Your task to perform on an android device: Empty the shopping cart on walmart.com. Add razer blackwidow to the cart on walmart.com, then select checkout. Image 0: 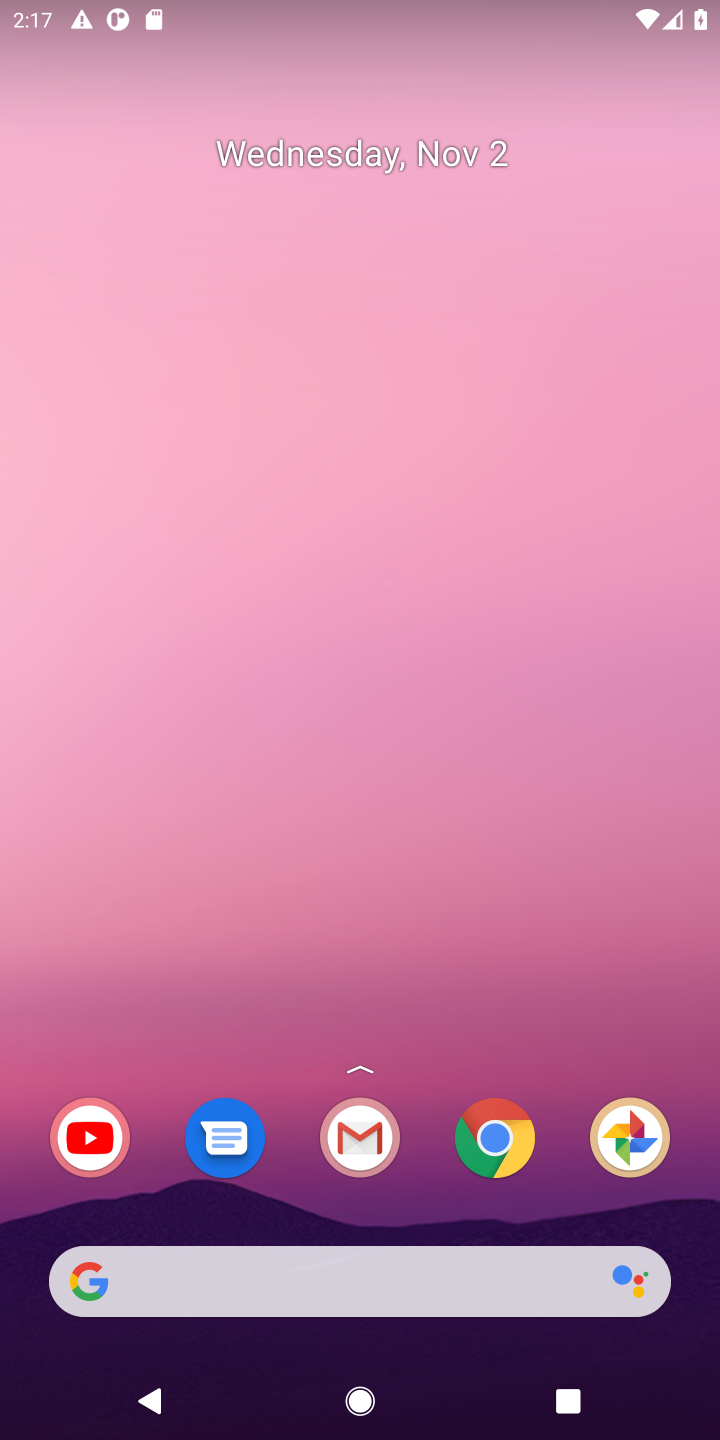
Step 0: press home button
Your task to perform on an android device: Empty the shopping cart on walmart.com. Add razer blackwidow to the cart on walmart.com, then select checkout. Image 1: 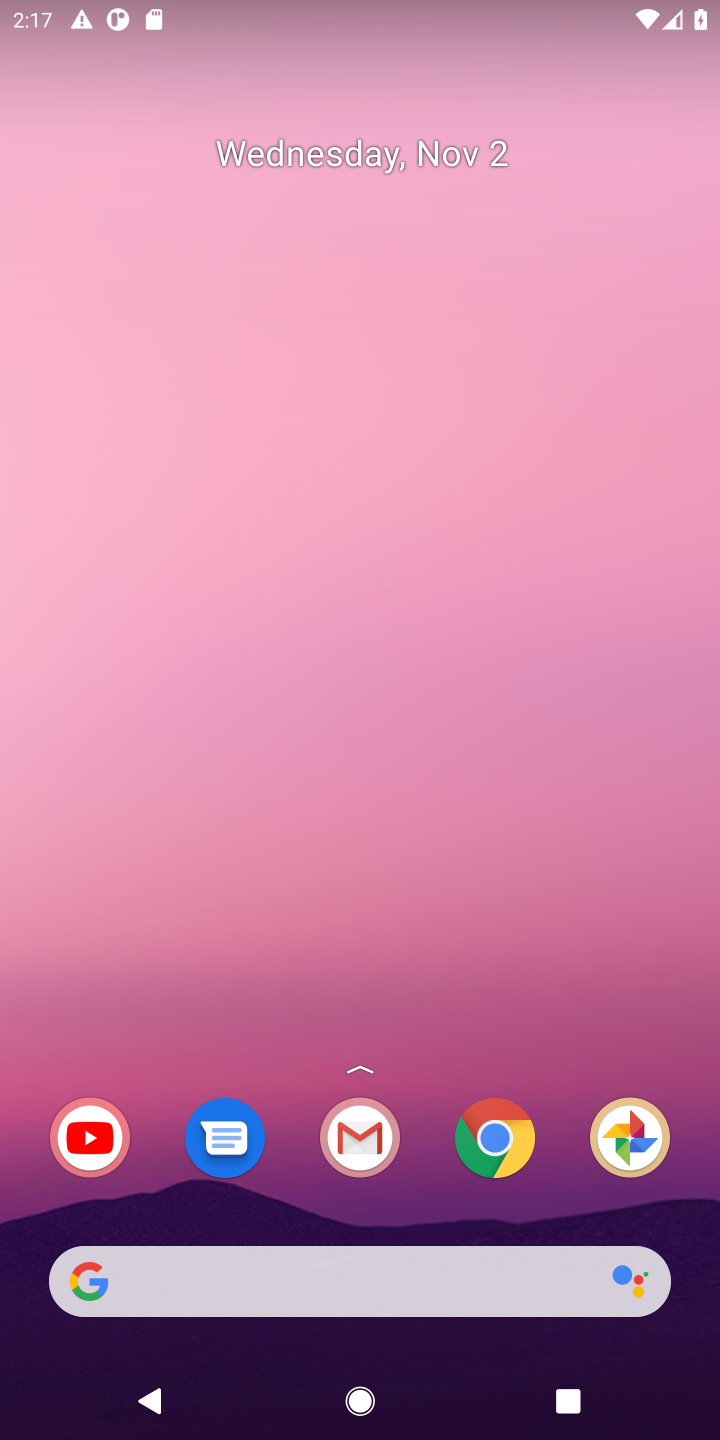
Step 1: click (267, 1274)
Your task to perform on an android device: Empty the shopping cart on walmart.com. Add razer blackwidow to the cart on walmart.com, then select checkout. Image 2: 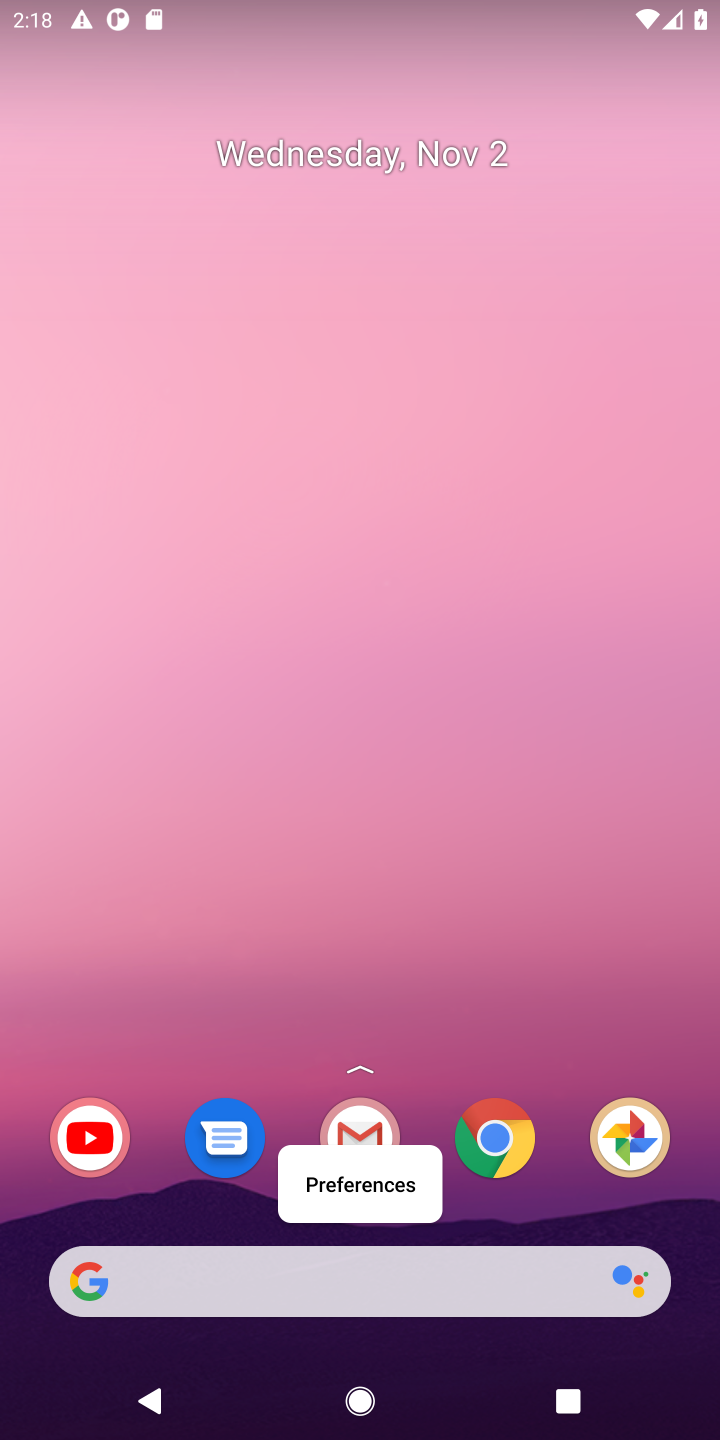
Step 2: click (134, 1279)
Your task to perform on an android device: Empty the shopping cart on walmart.com. Add razer blackwidow to the cart on walmart.com, then select checkout. Image 3: 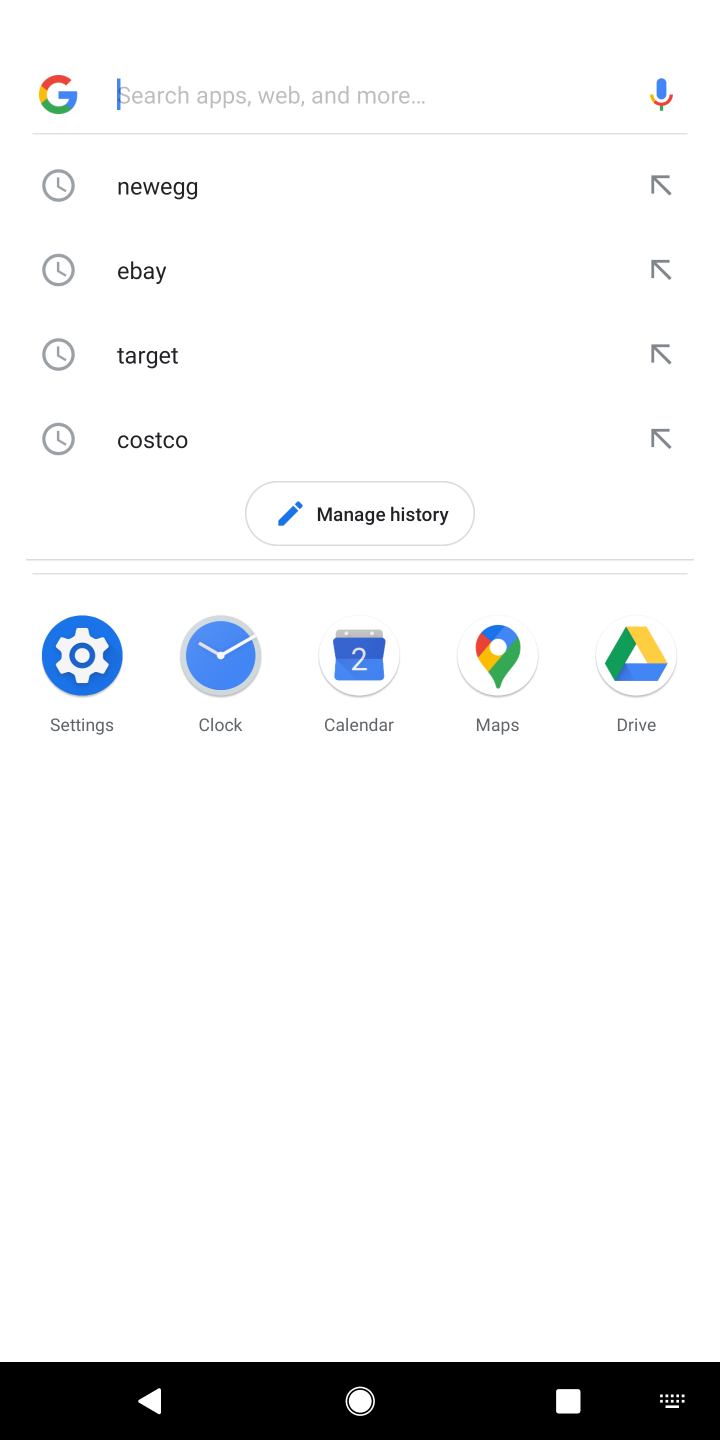
Step 3: type "walmart.com"
Your task to perform on an android device: Empty the shopping cart on walmart.com. Add razer blackwidow to the cart on walmart.com, then select checkout. Image 4: 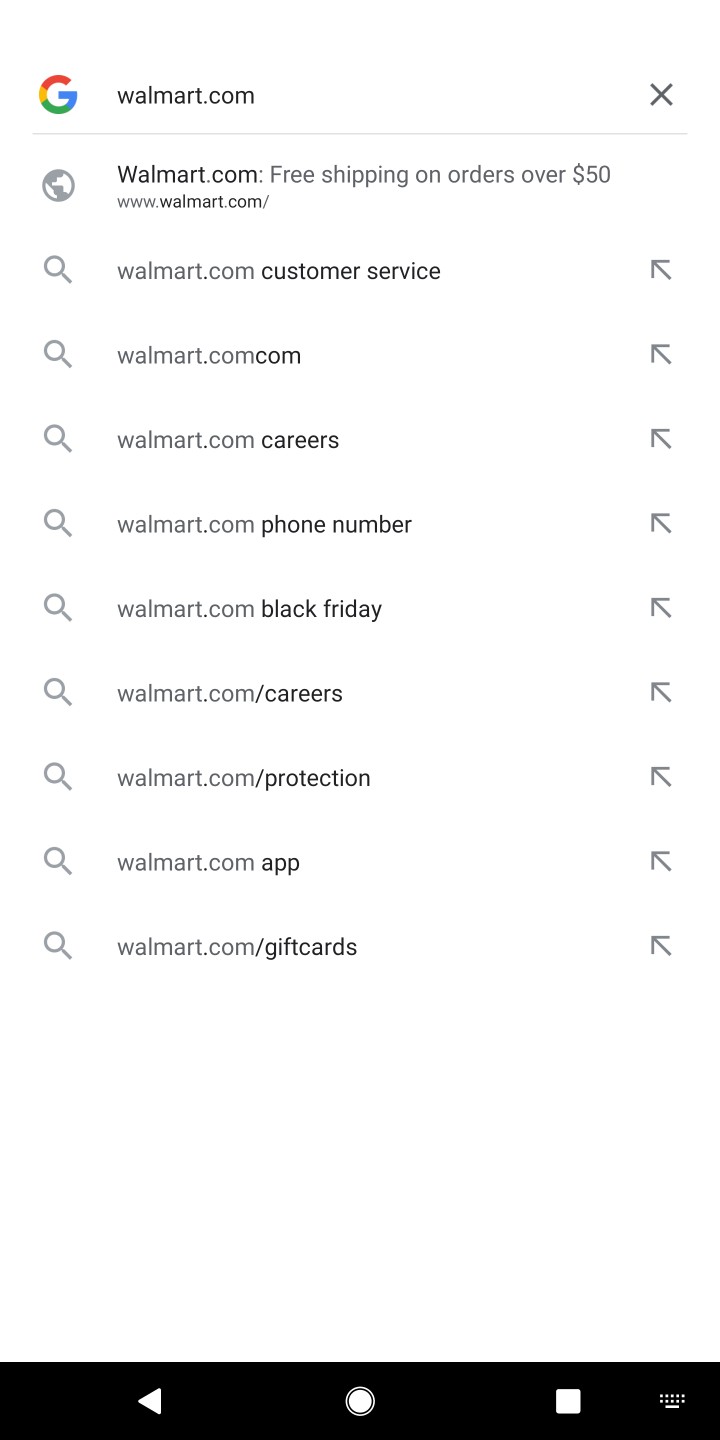
Step 4: press enter
Your task to perform on an android device: Empty the shopping cart on walmart.com. Add razer blackwidow to the cart on walmart.com, then select checkout. Image 5: 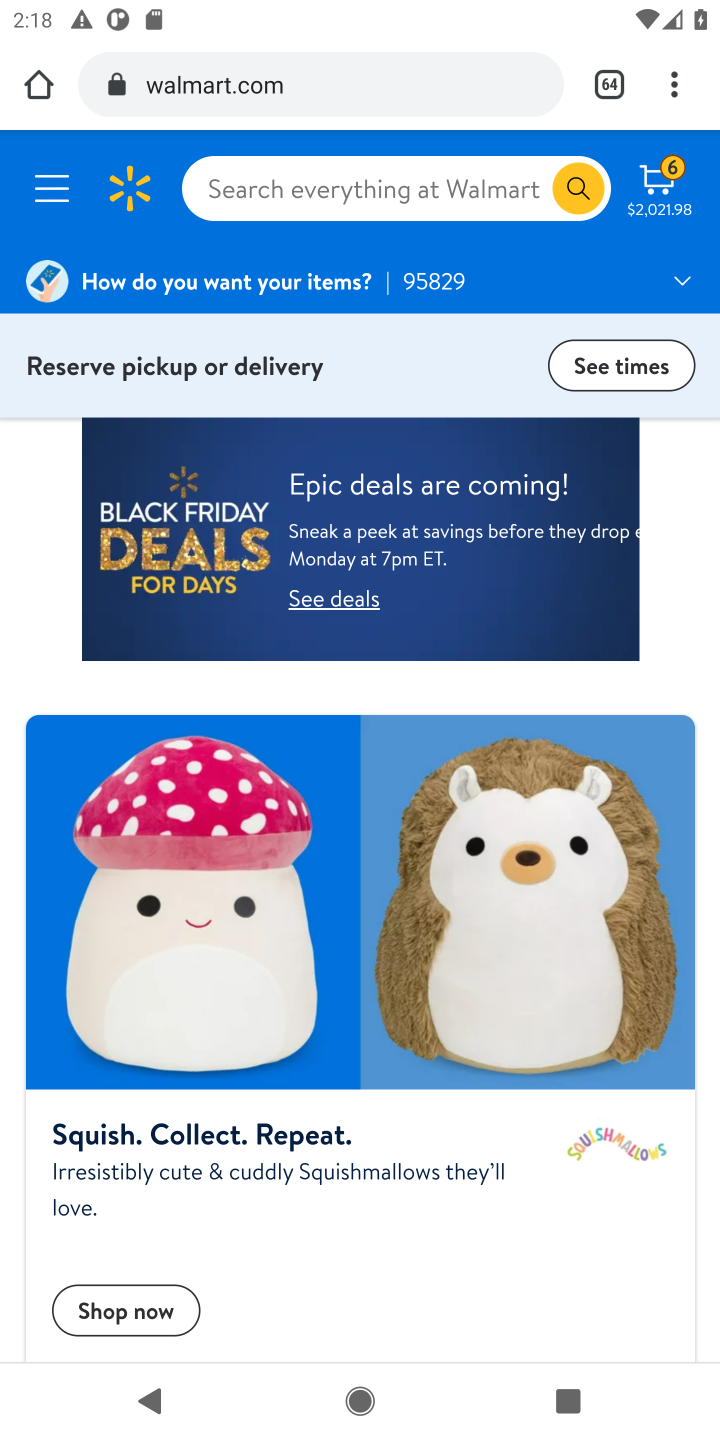
Step 5: click (654, 172)
Your task to perform on an android device: Empty the shopping cart on walmart.com. Add razer blackwidow to the cart on walmart.com, then select checkout. Image 6: 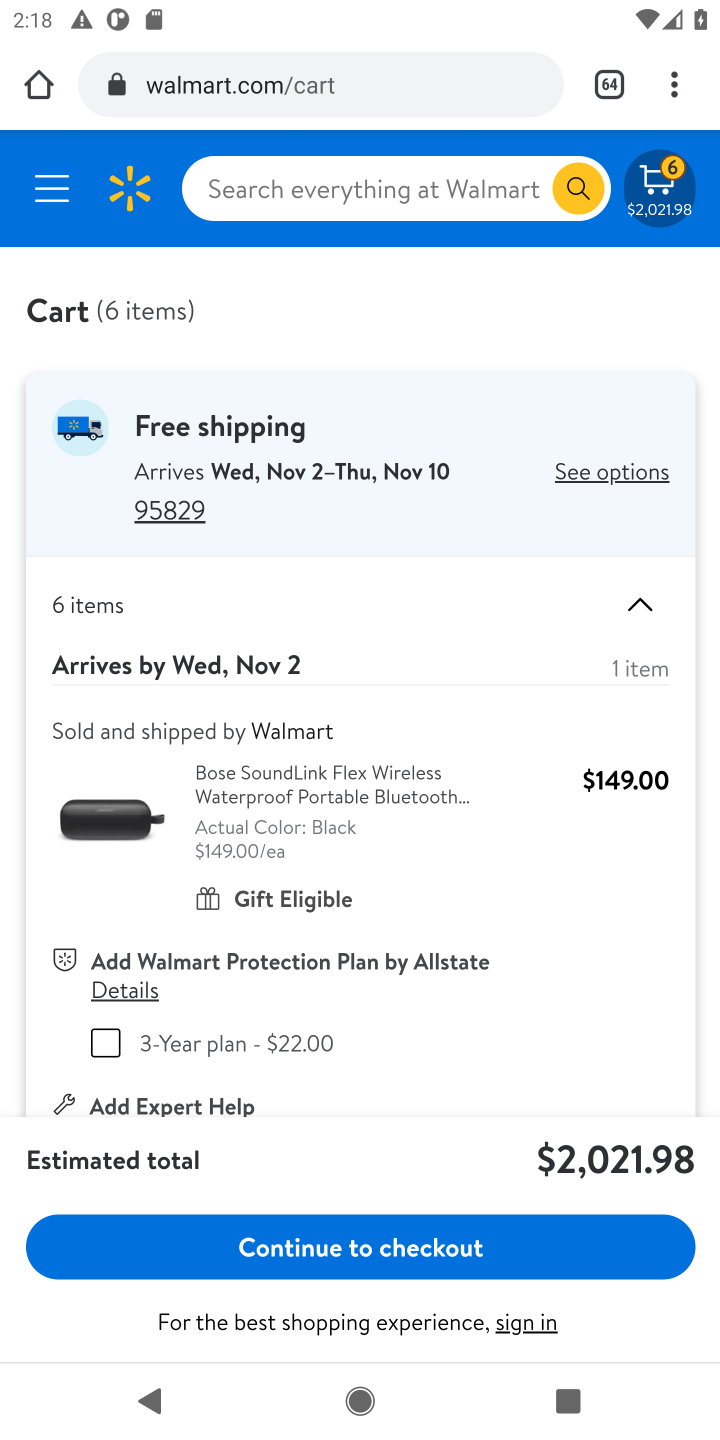
Step 6: drag from (317, 1024) to (313, 657)
Your task to perform on an android device: Empty the shopping cart on walmart.com. Add razer blackwidow to the cart on walmart.com, then select checkout. Image 7: 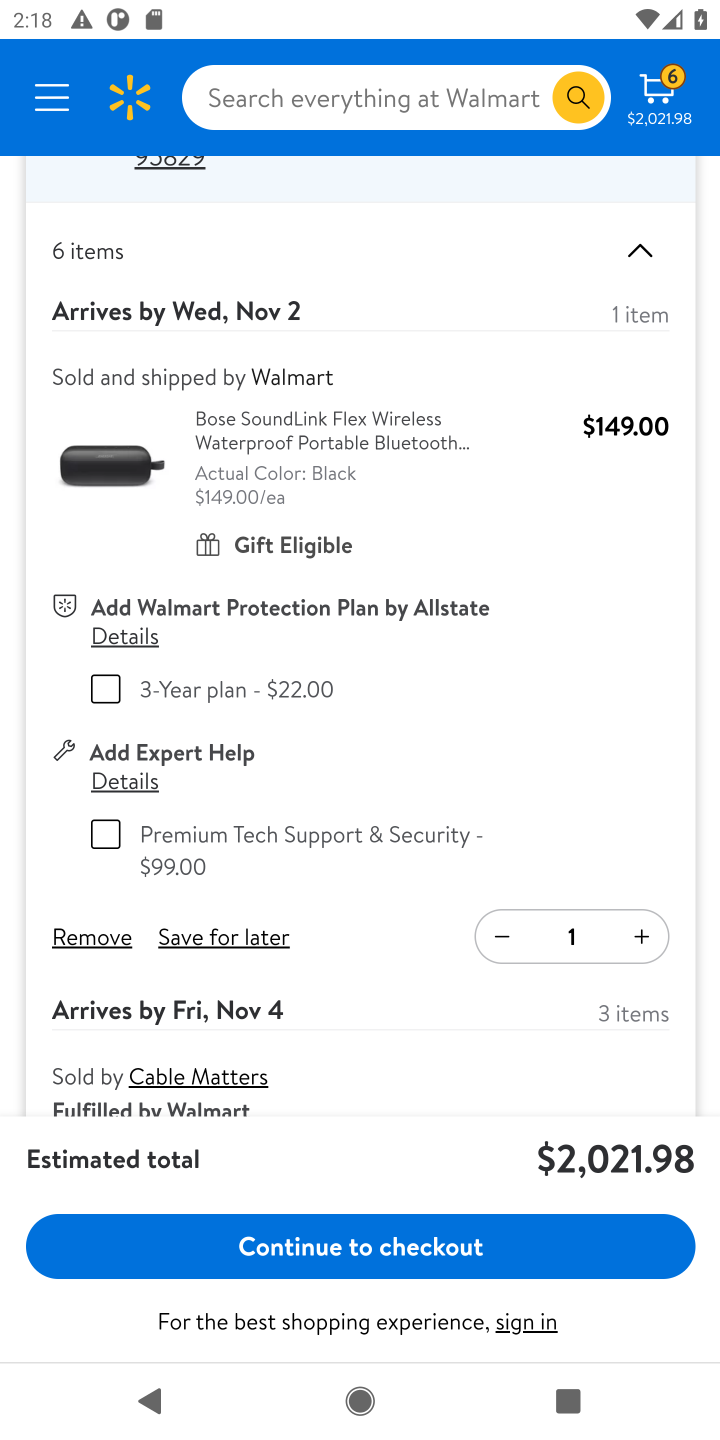
Step 7: click (113, 933)
Your task to perform on an android device: Empty the shopping cart on walmart.com. Add razer blackwidow to the cart on walmart.com, then select checkout. Image 8: 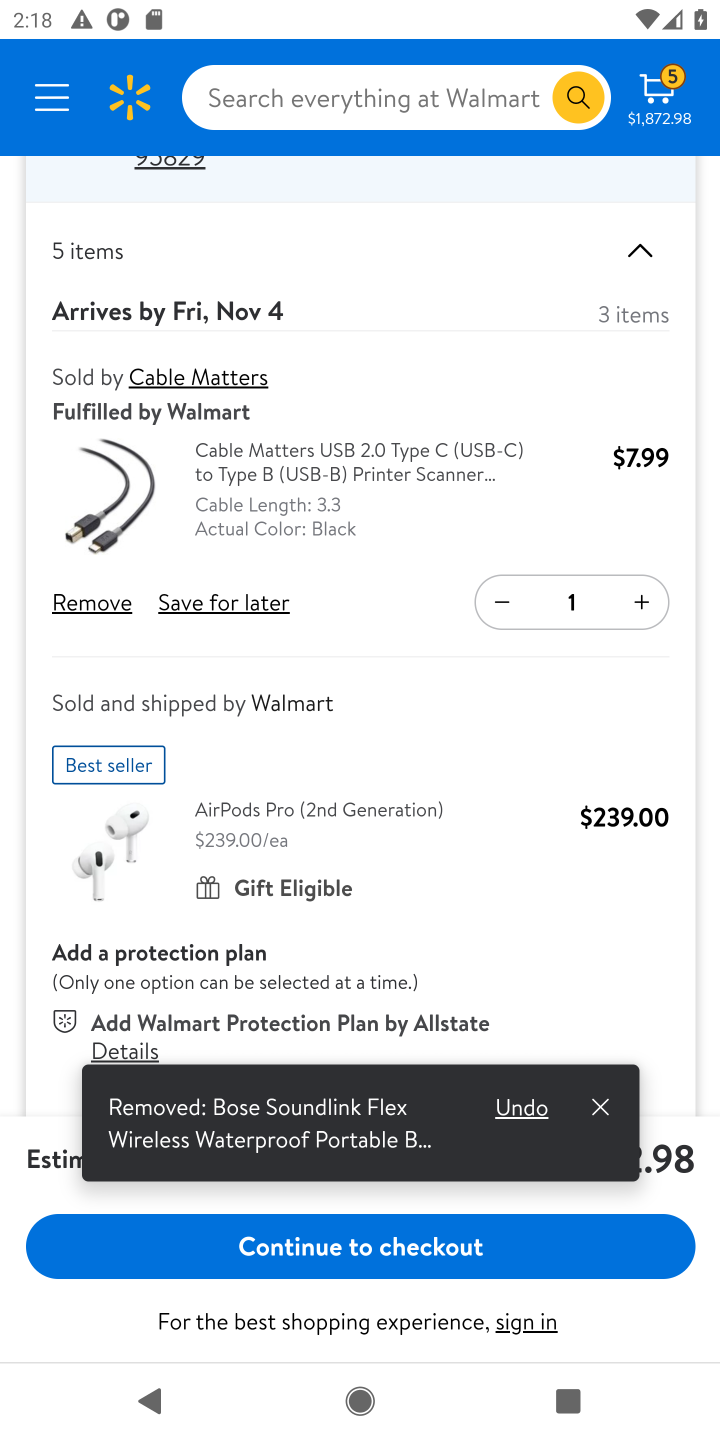
Step 8: click (97, 610)
Your task to perform on an android device: Empty the shopping cart on walmart.com. Add razer blackwidow to the cart on walmart.com, then select checkout. Image 9: 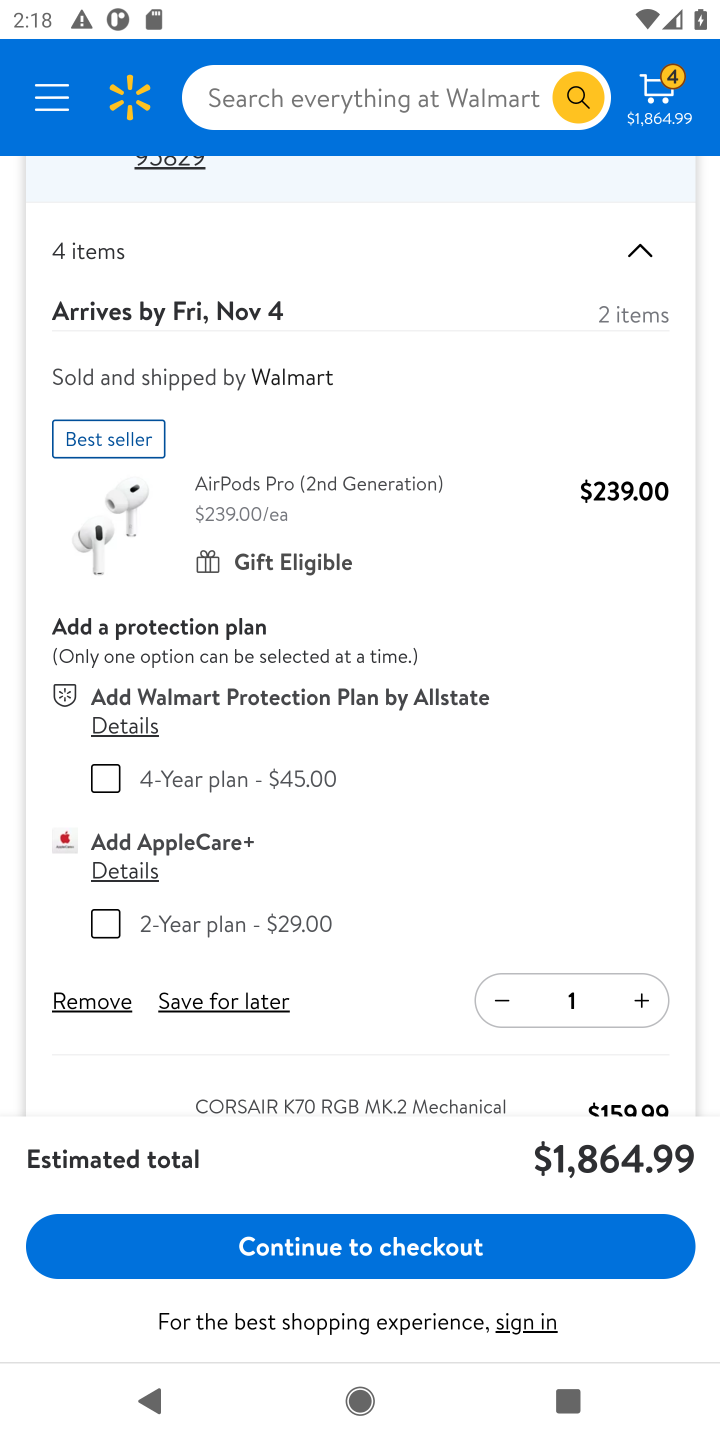
Step 9: click (90, 1011)
Your task to perform on an android device: Empty the shopping cart on walmart.com. Add razer blackwidow to the cart on walmart.com, then select checkout. Image 10: 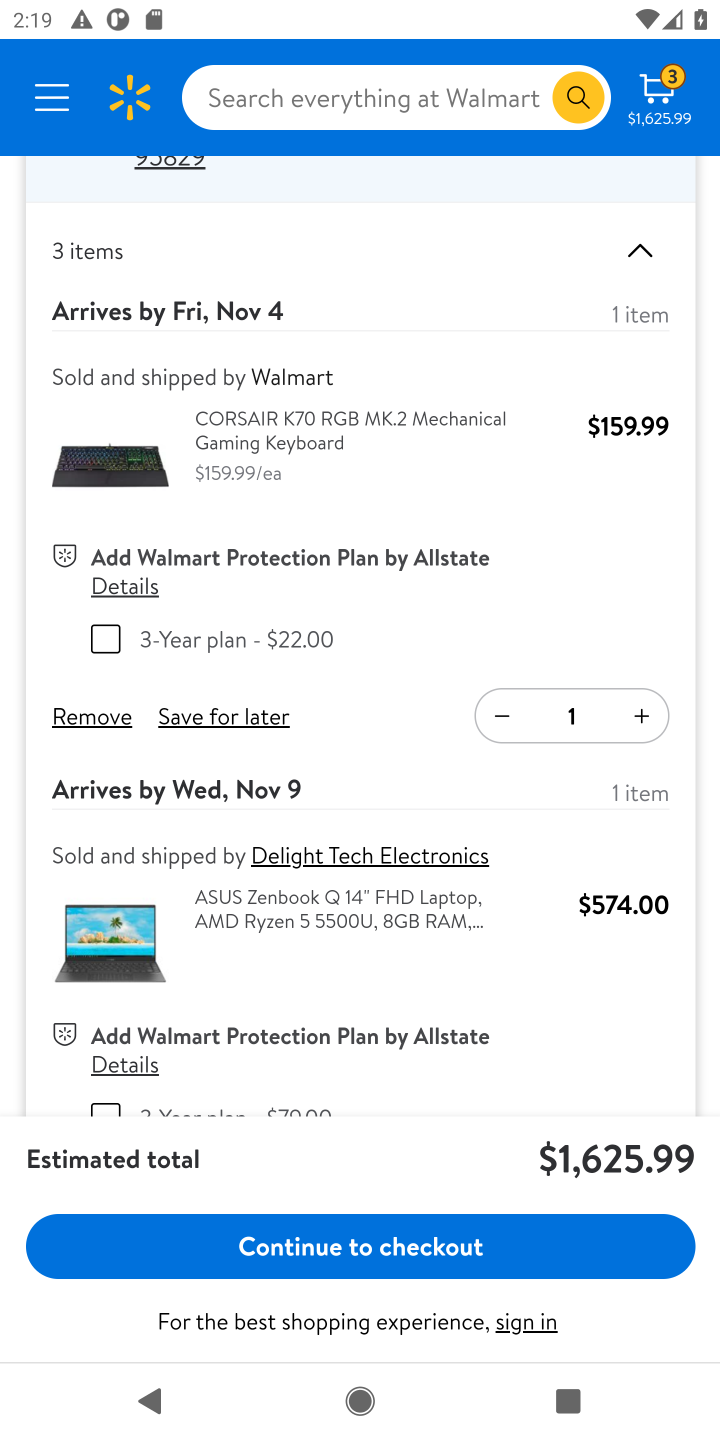
Step 10: click (91, 722)
Your task to perform on an android device: Empty the shopping cart on walmart.com. Add razer blackwidow to the cart on walmart.com, then select checkout. Image 11: 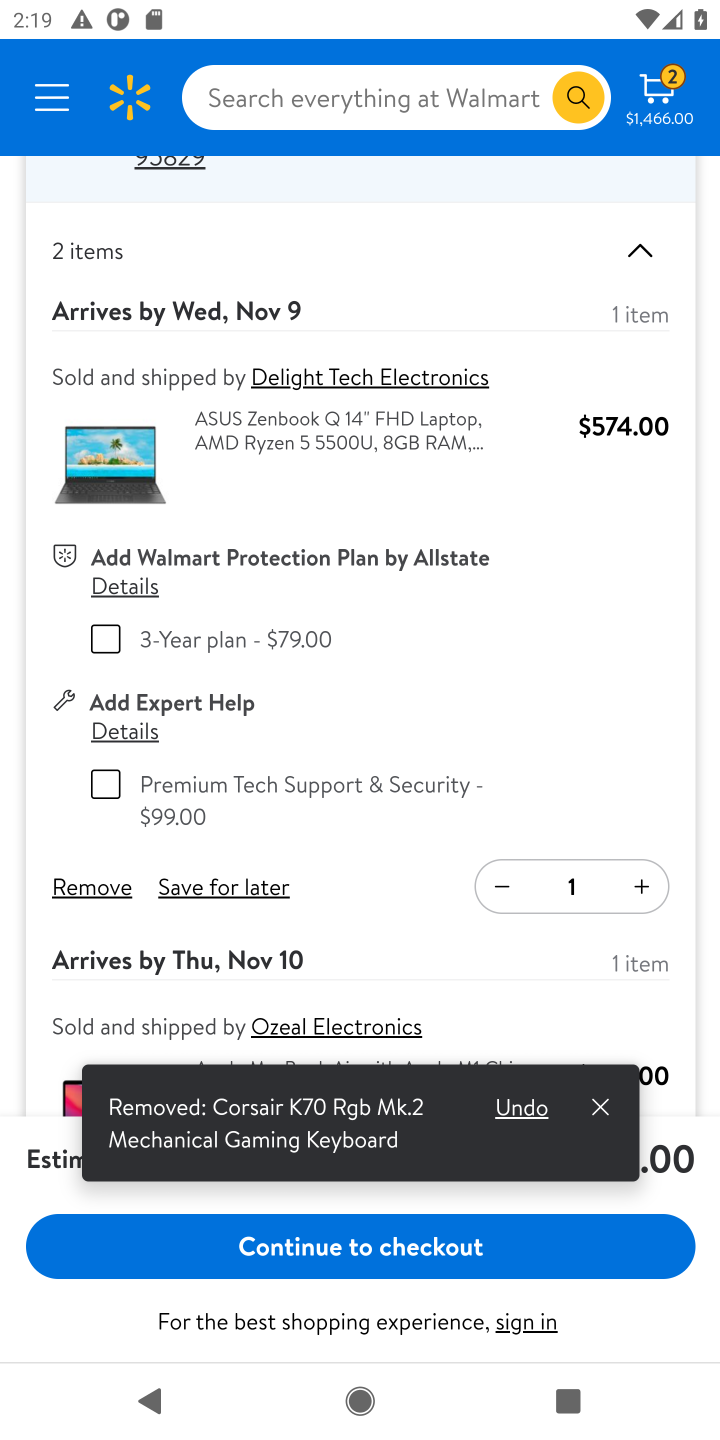
Step 11: click (97, 900)
Your task to perform on an android device: Empty the shopping cart on walmart.com. Add razer blackwidow to the cart on walmart.com, then select checkout. Image 12: 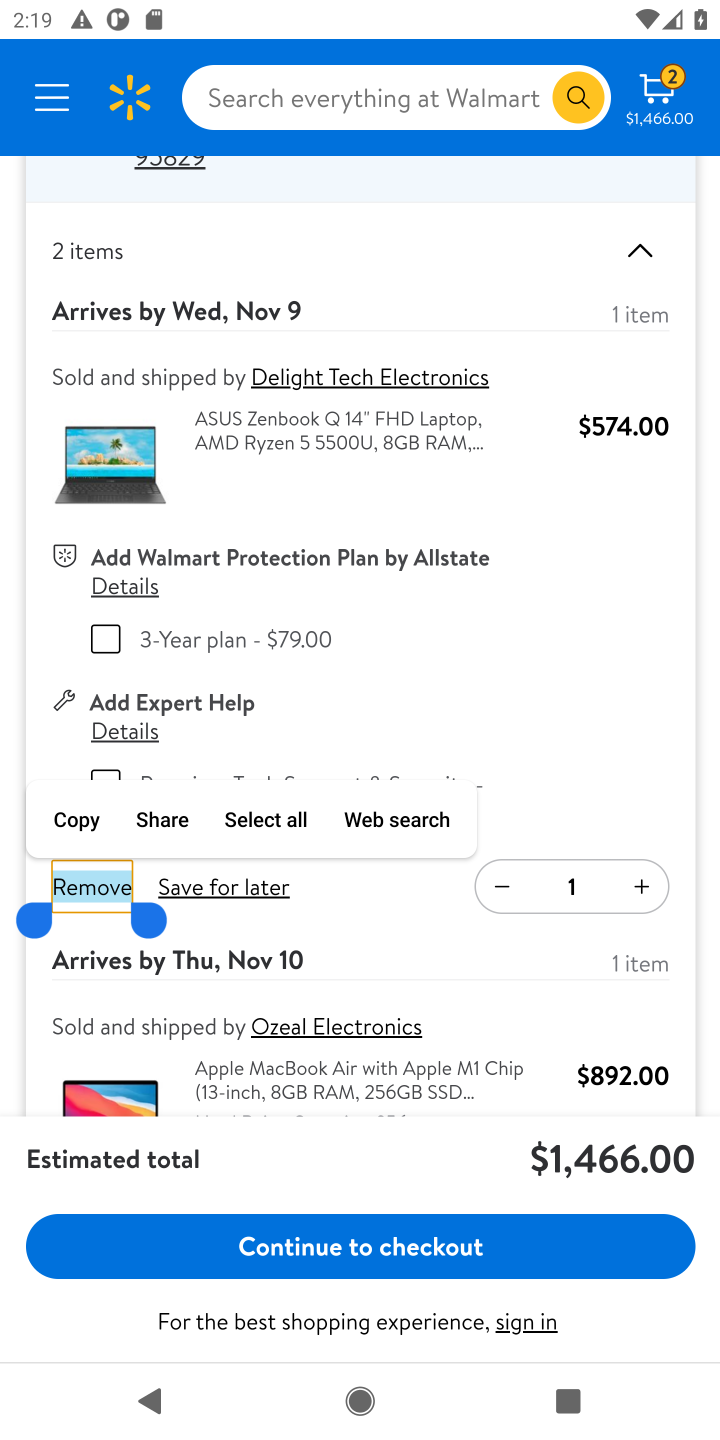
Step 12: click (84, 881)
Your task to perform on an android device: Empty the shopping cart on walmart.com. Add razer blackwidow to the cart on walmart.com, then select checkout. Image 13: 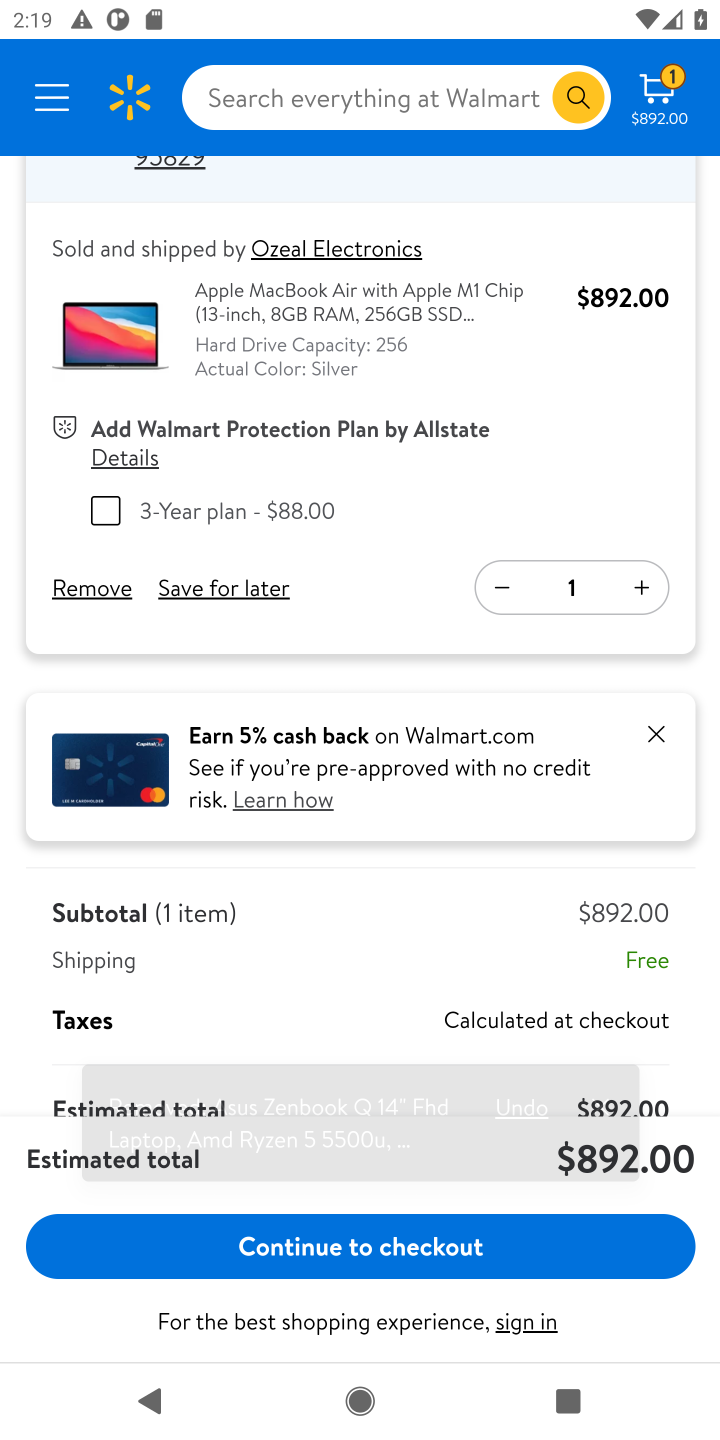
Step 13: click (102, 594)
Your task to perform on an android device: Empty the shopping cart on walmart.com. Add razer blackwidow to the cart on walmart.com, then select checkout. Image 14: 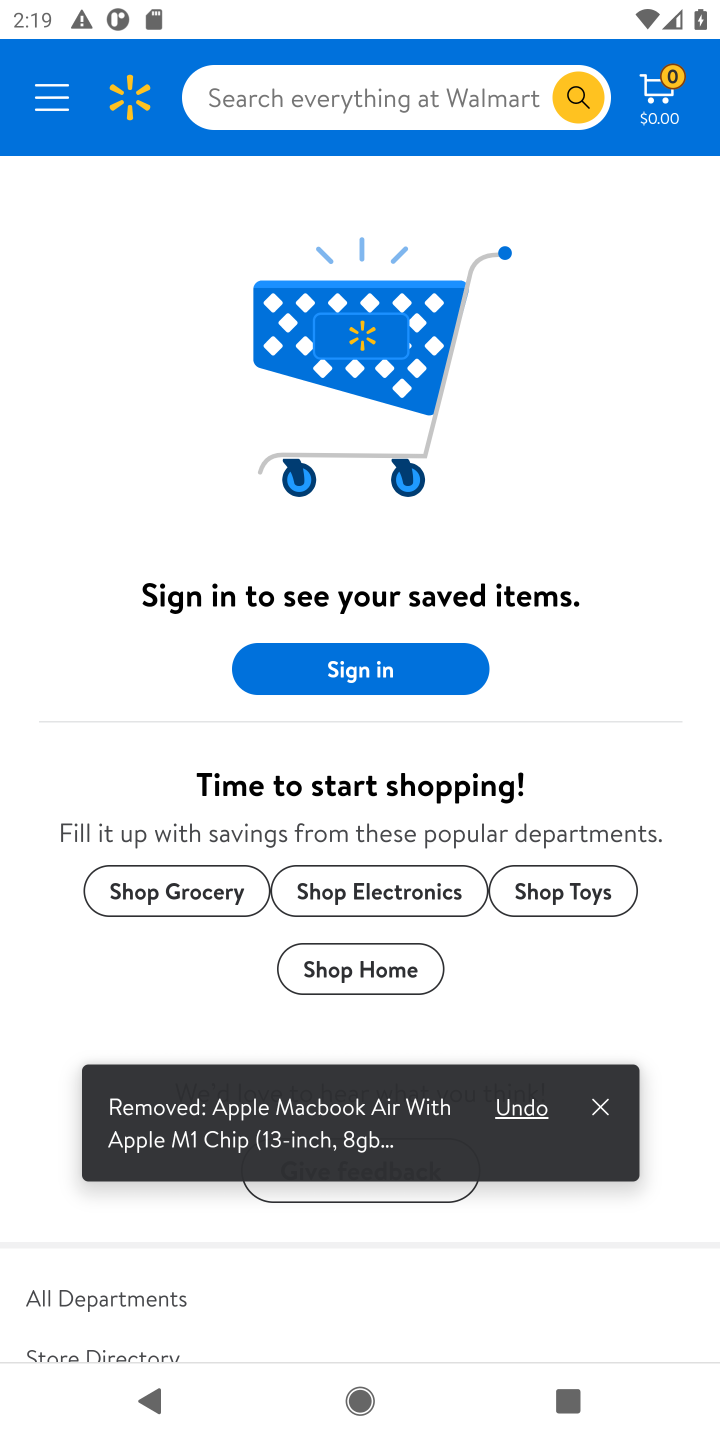
Step 14: click (320, 101)
Your task to perform on an android device: Empty the shopping cart on walmart.com. Add razer blackwidow to the cart on walmart.com, then select checkout. Image 15: 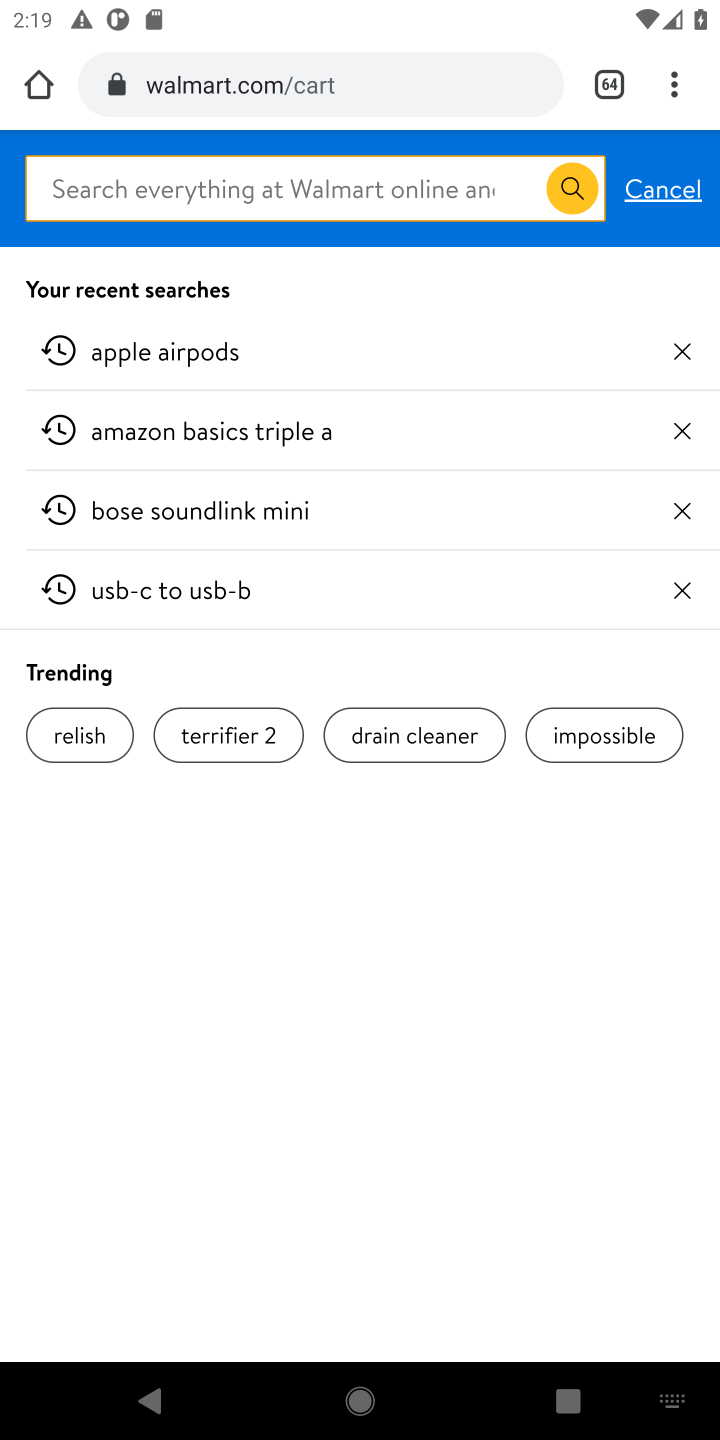
Step 15: type "razer blackwidow"
Your task to perform on an android device: Empty the shopping cart on walmart.com. Add razer blackwidow to the cart on walmart.com, then select checkout. Image 16: 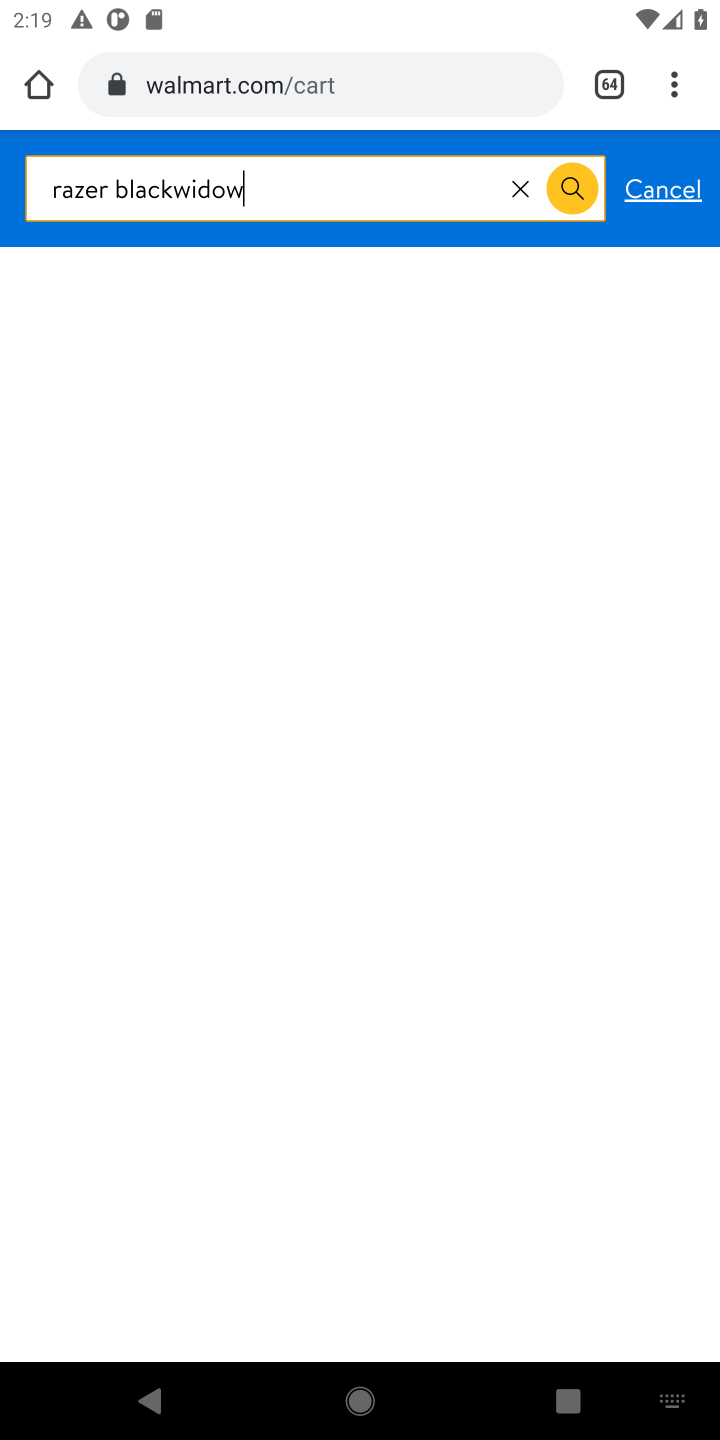
Step 16: press enter
Your task to perform on an android device: Empty the shopping cart on walmart.com. Add razer blackwidow to the cart on walmart.com, then select checkout. Image 17: 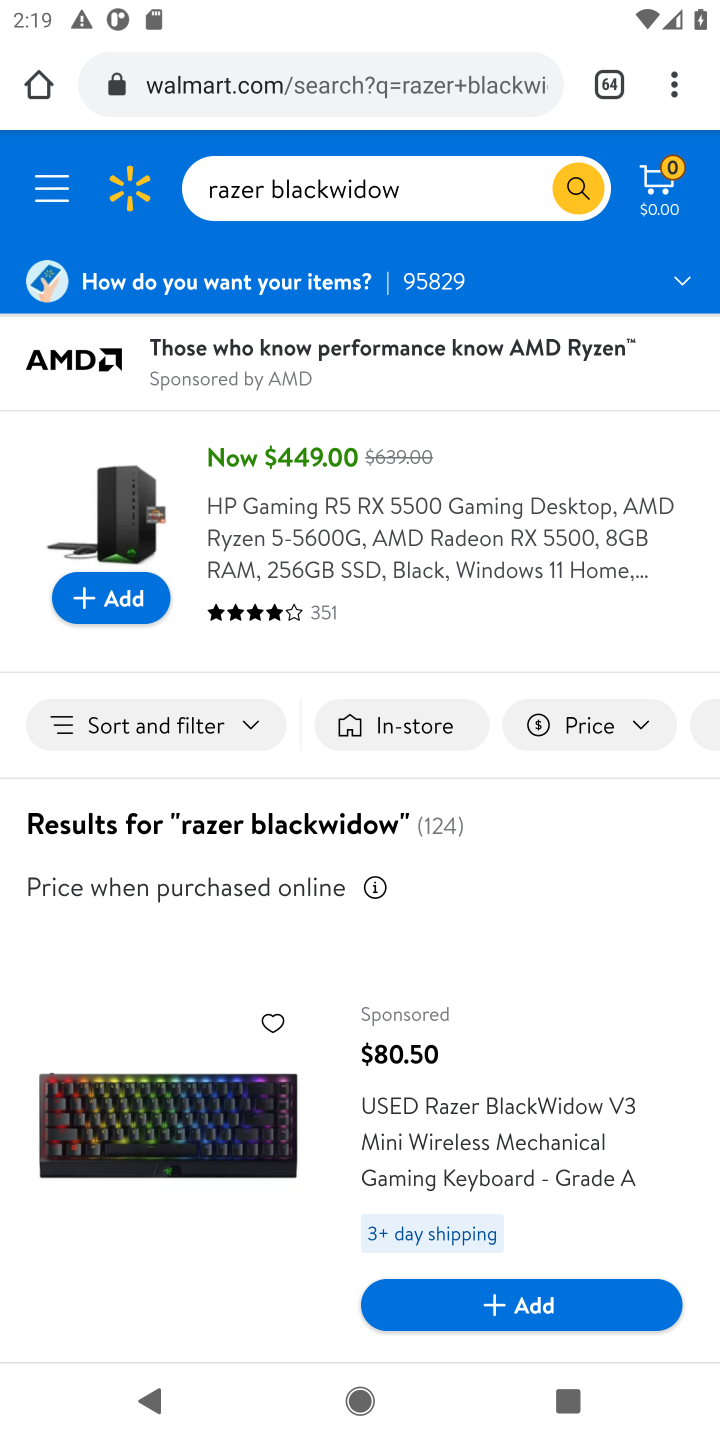
Step 17: drag from (528, 1066) to (496, 693)
Your task to perform on an android device: Empty the shopping cart on walmart.com. Add razer blackwidow to the cart on walmart.com, then select checkout. Image 18: 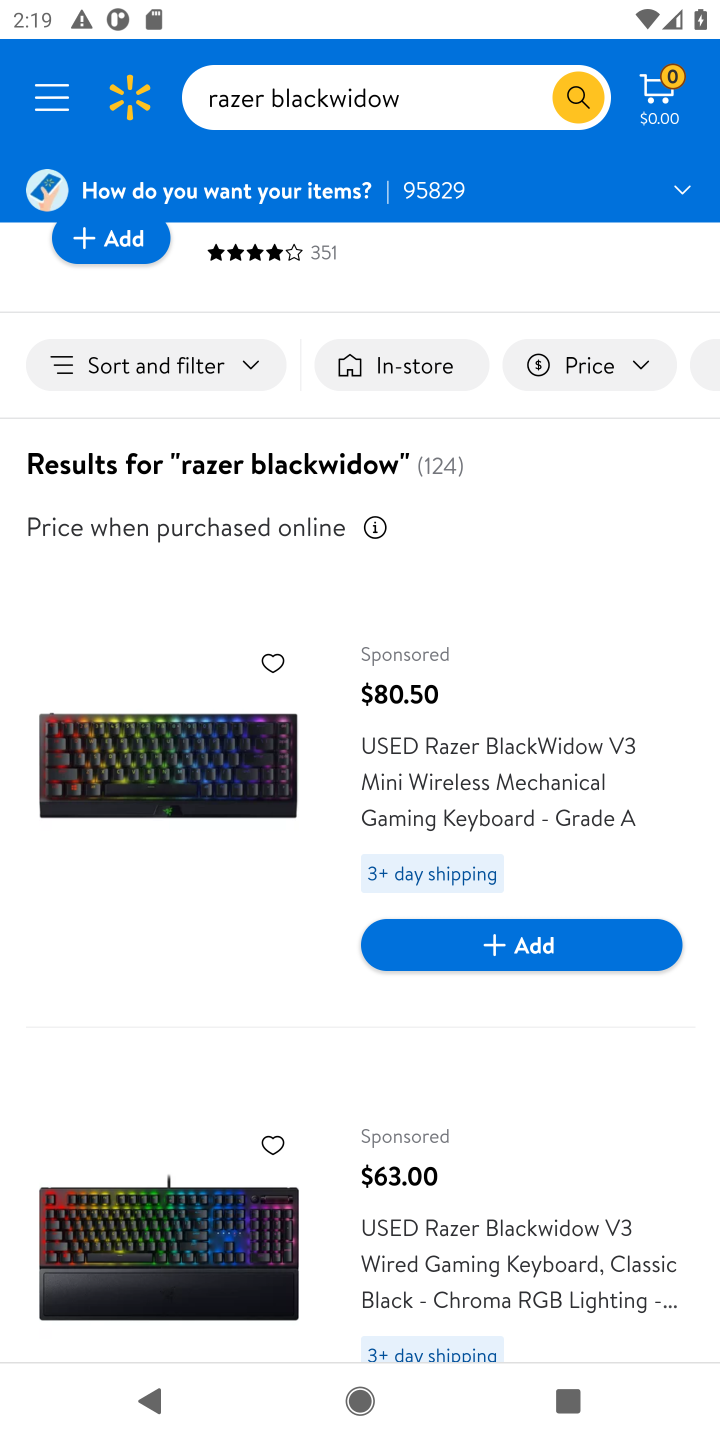
Step 18: drag from (498, 1159) to (496, 819)
Your task to perform on an android device: Empty the shopping cart on walmart.com. Add razer blackwidow to the cart on walmart.com, then select checkout. Image 19: 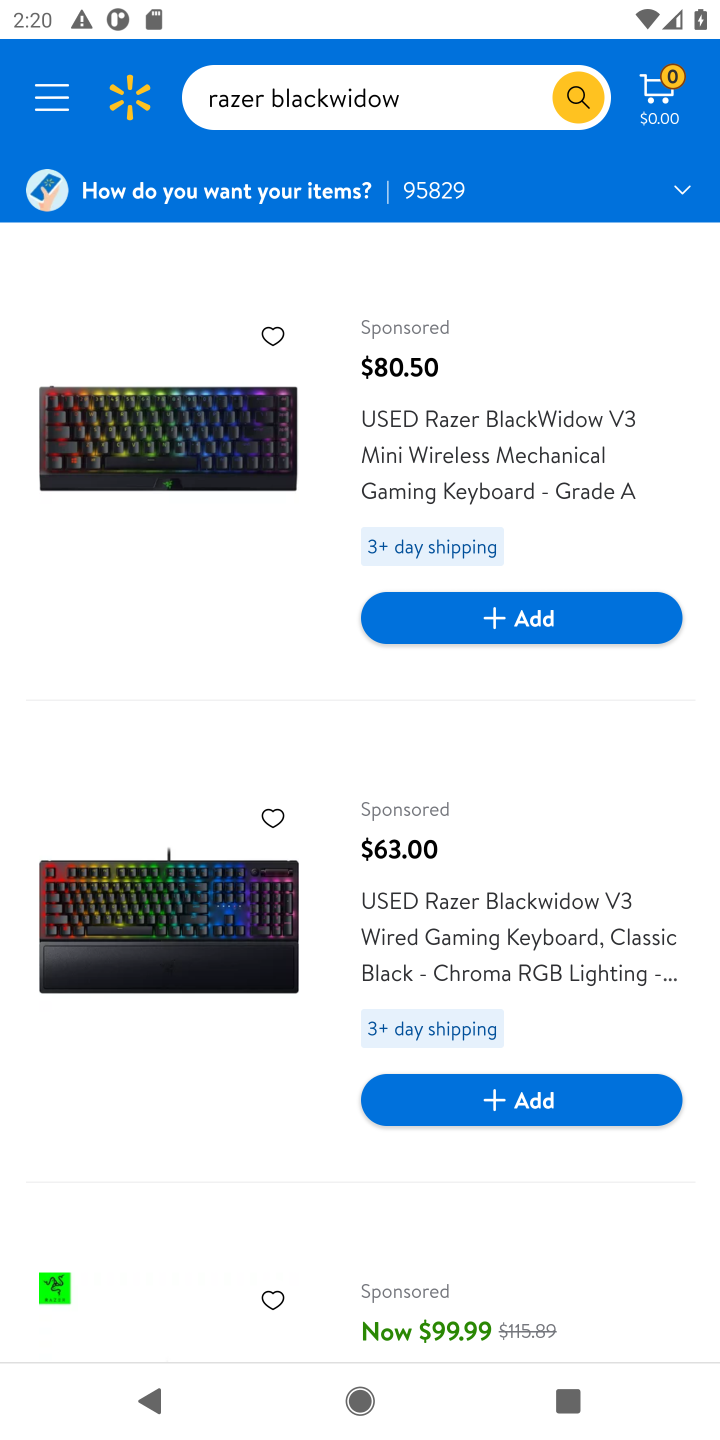
Step 19: click (526, 1100)
Your task to perform on an android device: Empty the shopping cart on walmart.com. Add razer blackwidow to the cart on walmart.com, then select checkout. Image 20: 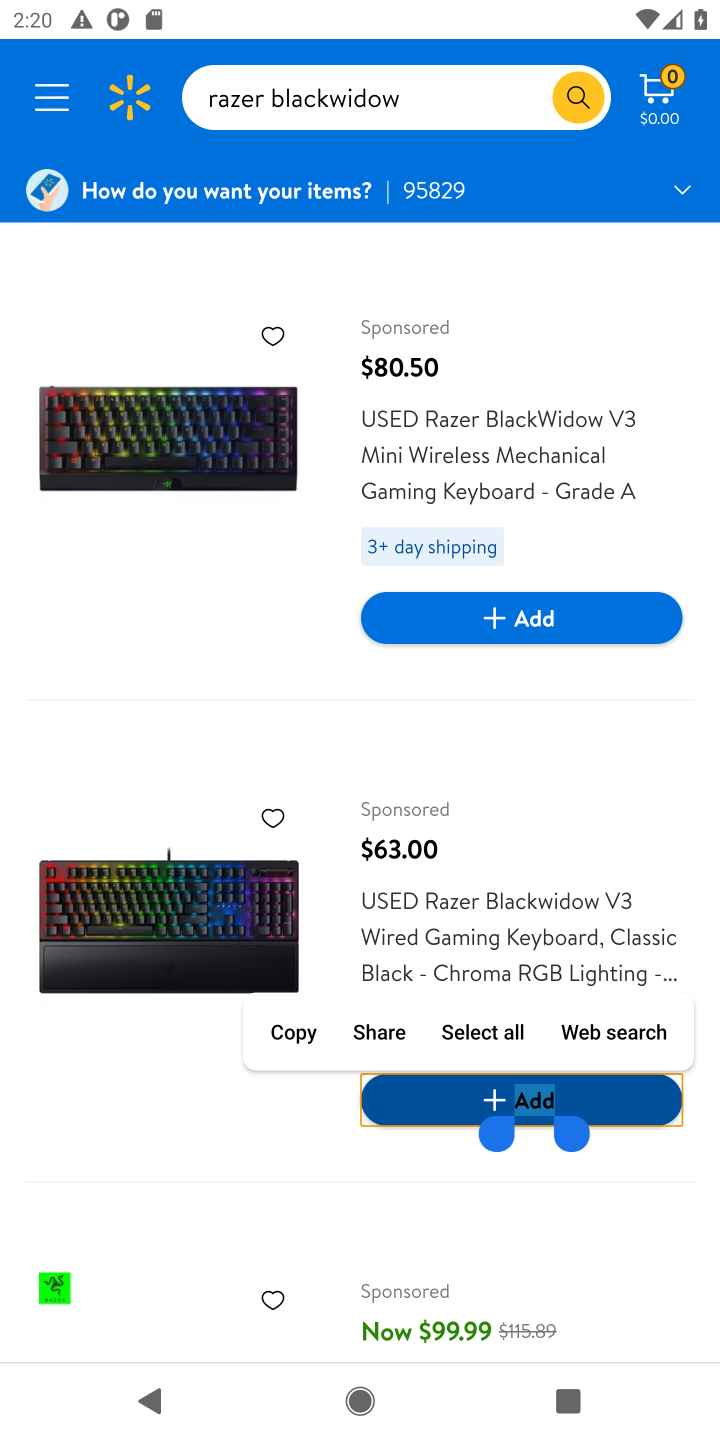
Step 20: click (541, 1095)
Your task to perform on an android device: Empty the shopping cart on walmart.com. Add razer blackwidow to the cart on walmart.com, then select checkout. Image 21: 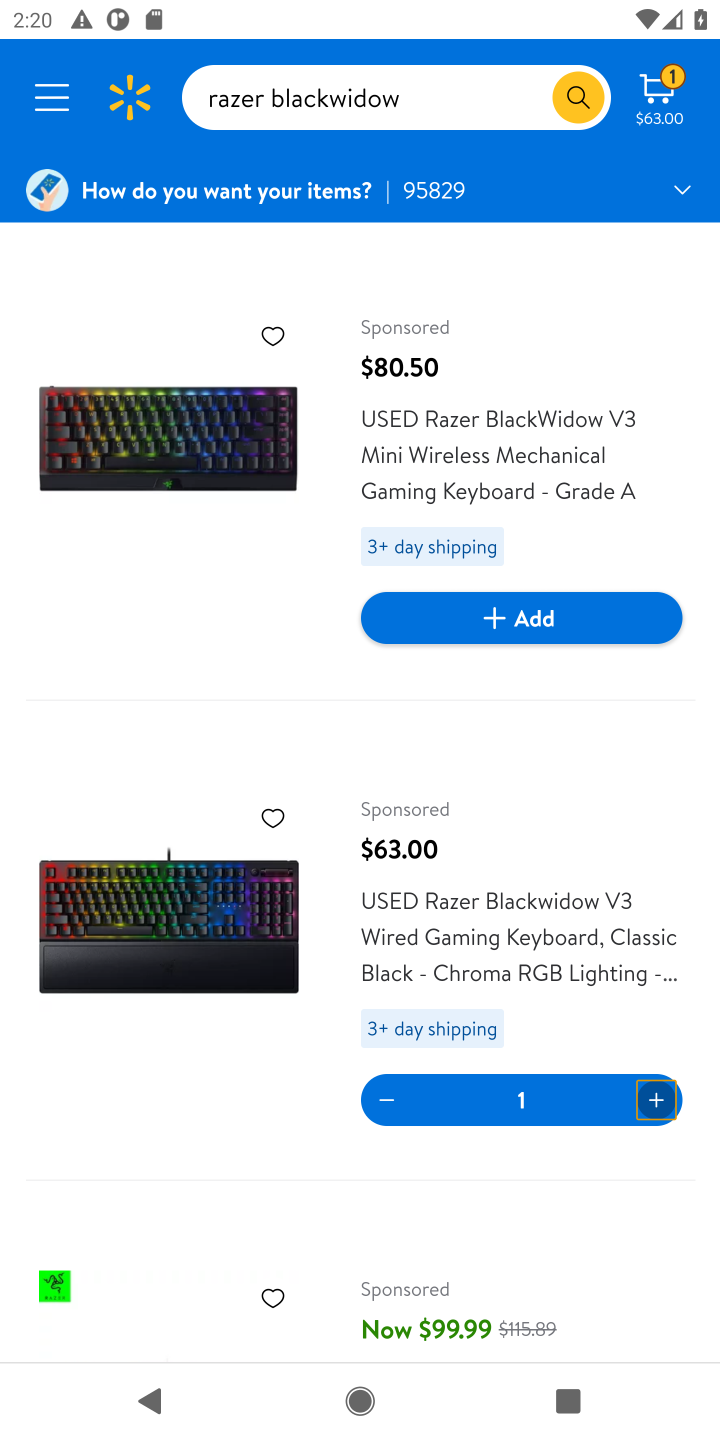
Step 21: click (646, 103)
Your task to perform on an android device: Empty the shopping cart on walmart.com. Add razer blackwidow to the cart on walmart.com, then select checkout. Image 22: 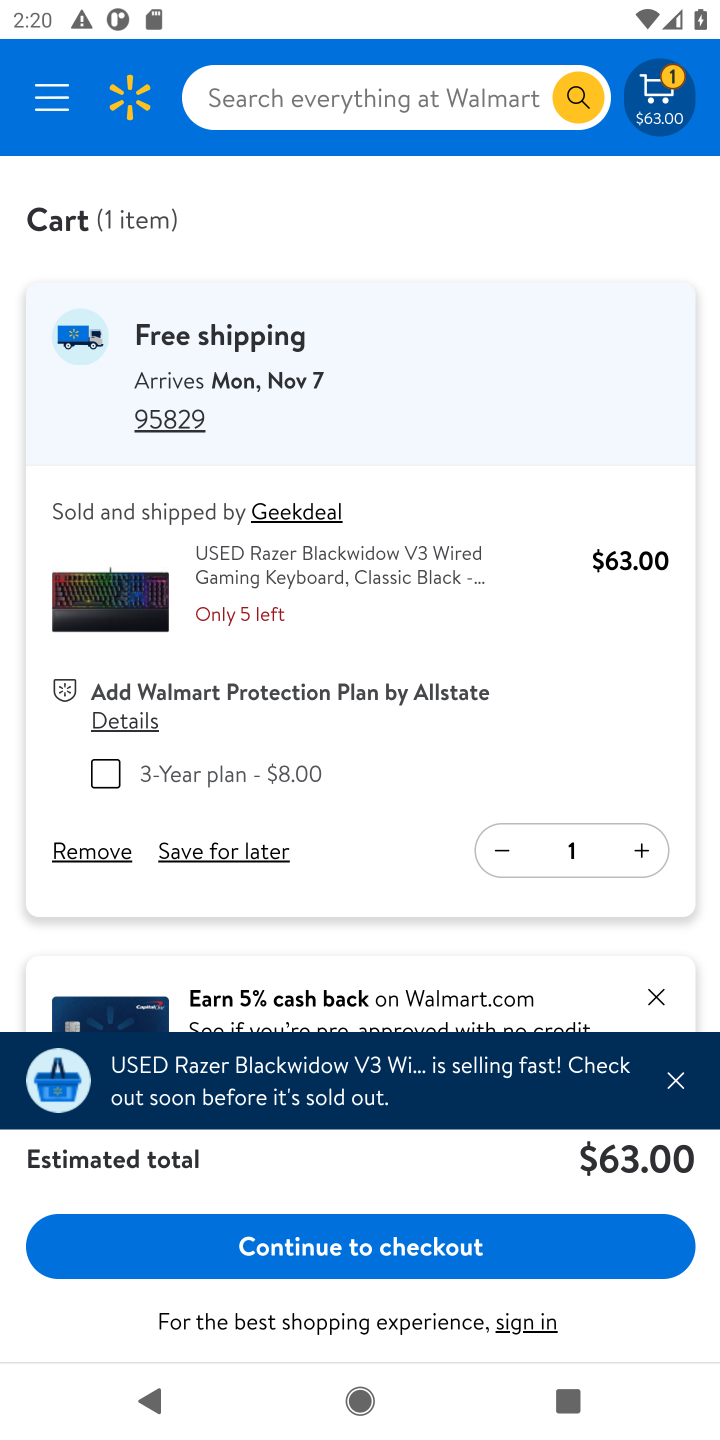
Step 22: click (421, 1246)
Your task to perform on an android device: Empty the shopping cart on walmart.com. Add razer blackwidow to the cart on walmart.com, then select checkout. Image 23: 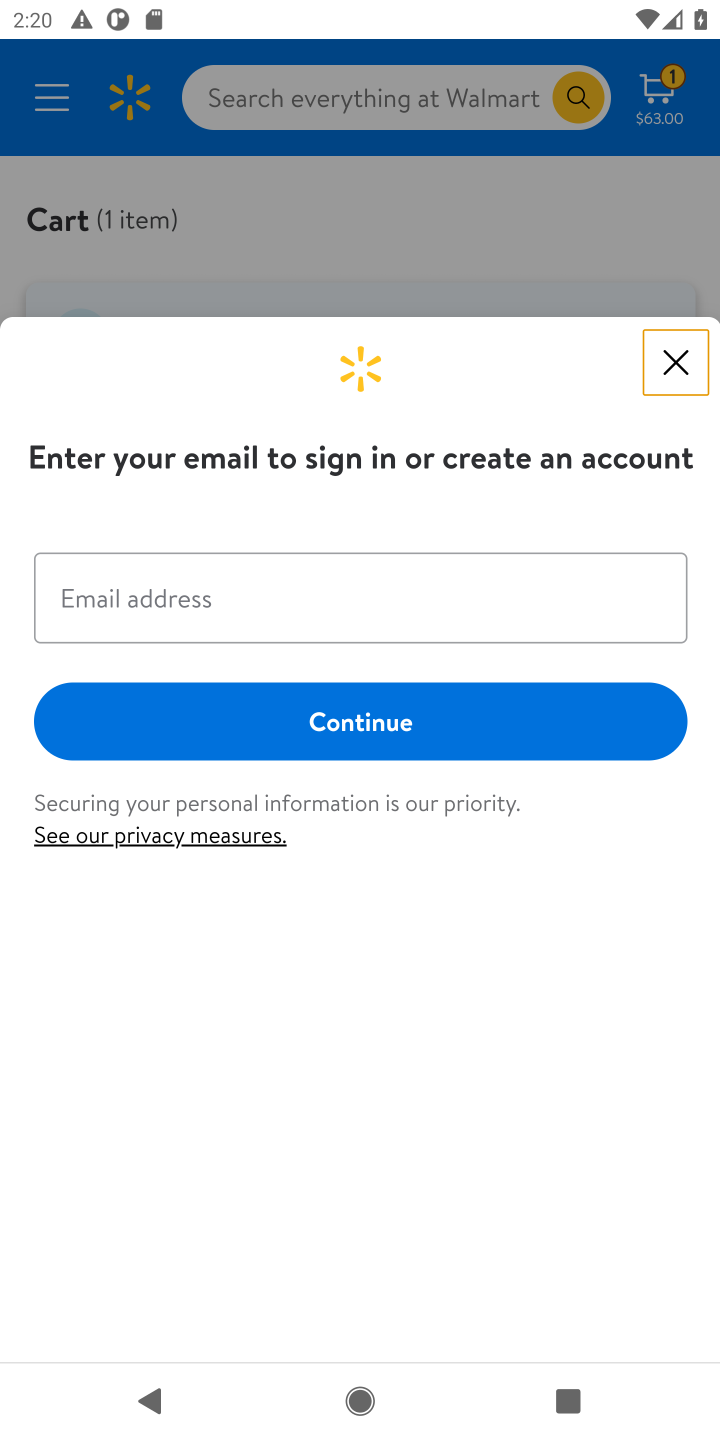
Step 23: task complete